Your task to perform on an android device: What's on my calendar tomorrow? Image 0: 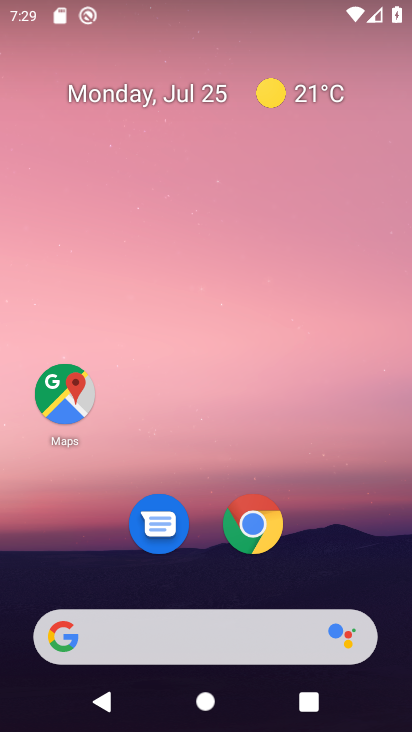
Step 0: drag from (226, 637) to (309, 265)
Your task to perform on an android device: What's on my calendar tomorrow? Image 1: 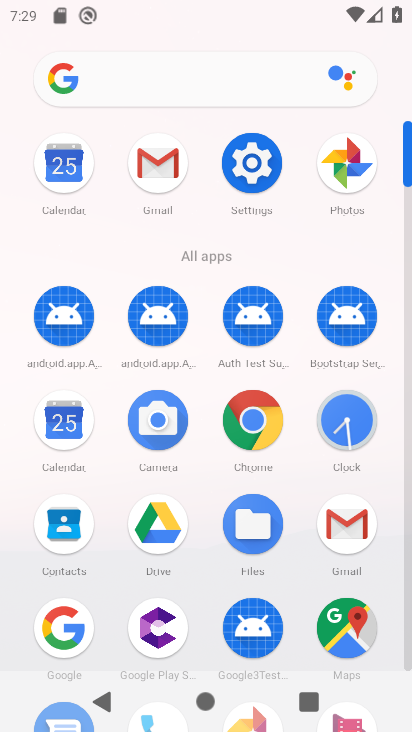
Step 1: click (66, 426)
Your task to perform on an android device: What's on my calendar tomorrow? Image 2: 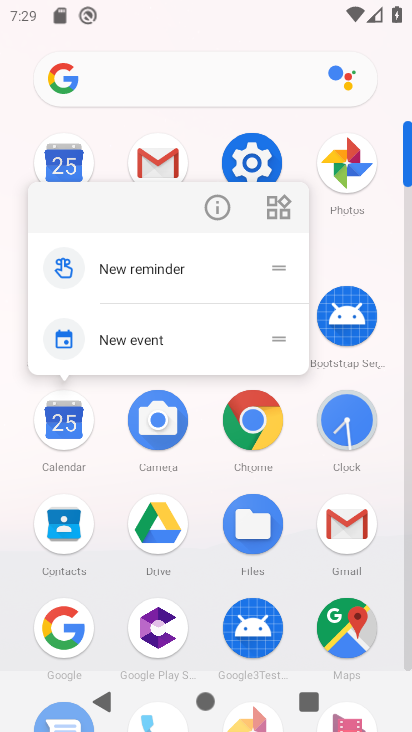
Step 2: click (65, 428)
Your task to perform on an android device: What's on my calendar tomorrow? Image 3: 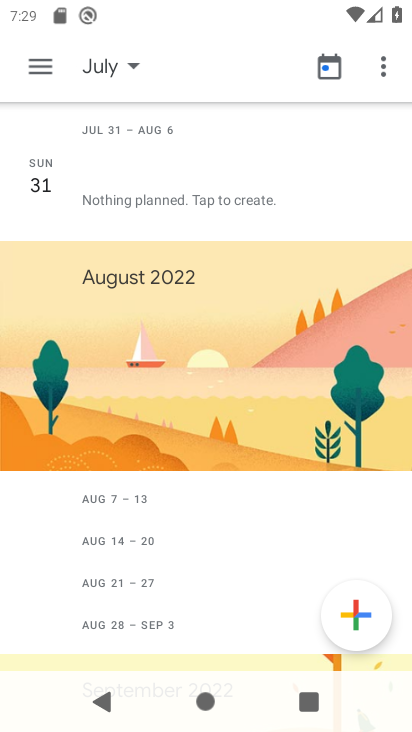
Step 3: click (119, 63)
Your task to perform on an android device: What's on my calendar tomorrow? Image 4: 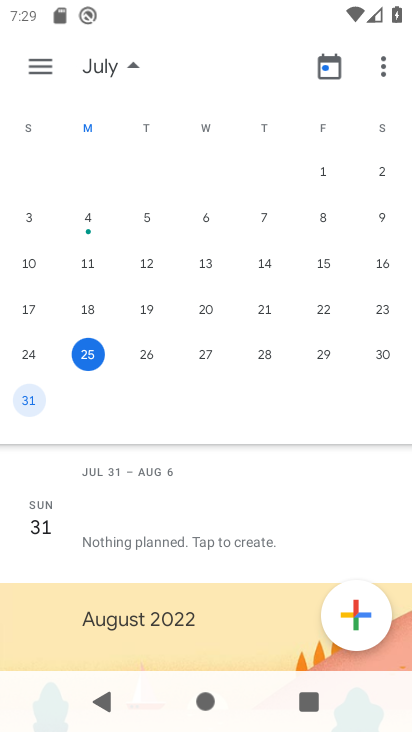
Step 4: click (149, 353)
Your task to perform on an android device: What's on my calendar tomorrow? Image 5: 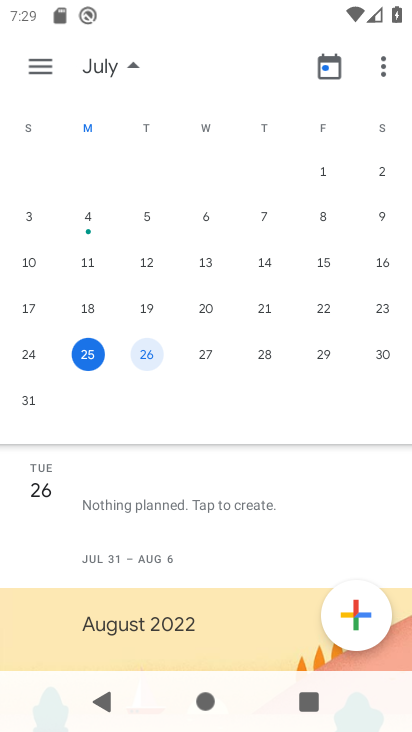
Step 5: click (37, 64)
Your task to perform on an android device: What's on my calendar tomorrow? Image 6: 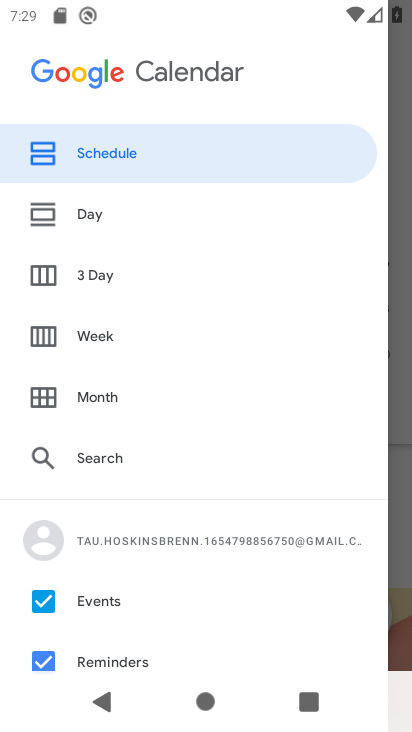
Step 6: click (84, 216)
Your task to perform on an android device: What's on my calendar tomorrow? Image 7: 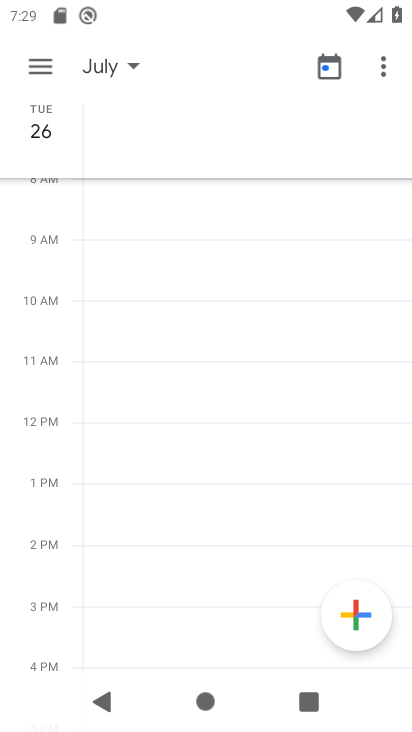
Step 7: click (52, 69)
Your task to perform on an android device: What's on my calendar tomorrow? Image 8: 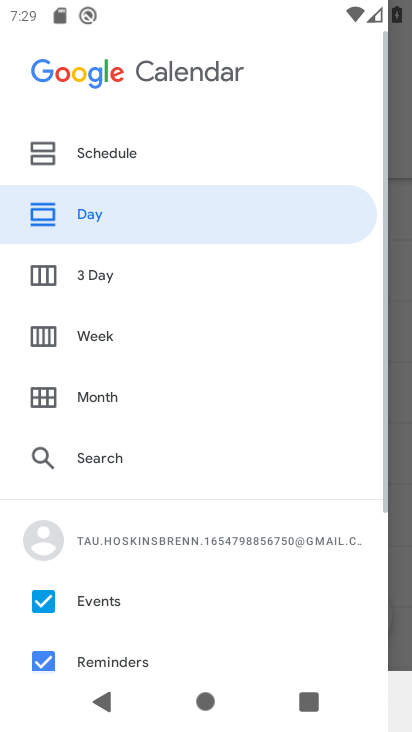
Step 8: click (135, 150)
Your task to perform on an android device: What's on my calendar tomorrow? Image 9: 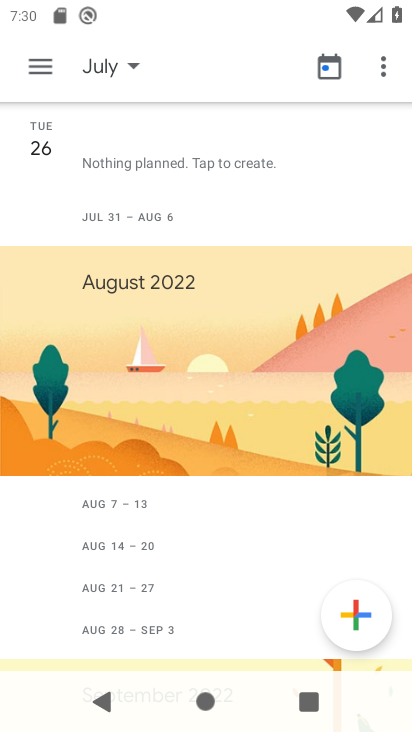
Step 9: task complete